Your task to perform on an android device: Go to internet settings Image 0: 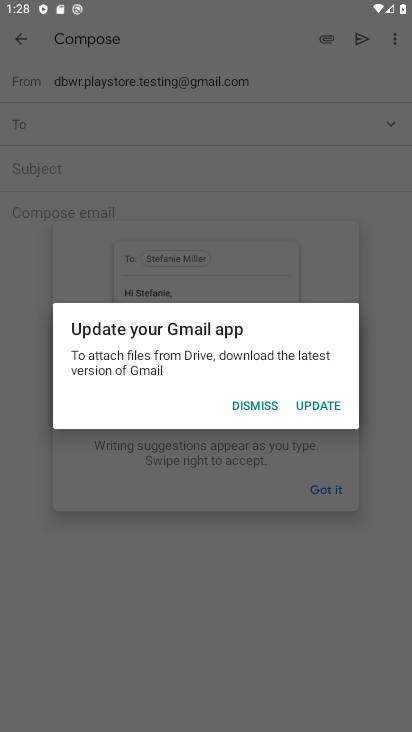
Step 0: drag from (137, 10) to (124, 693)
Your task to perform on an android device: Go to internet settings Image 1: 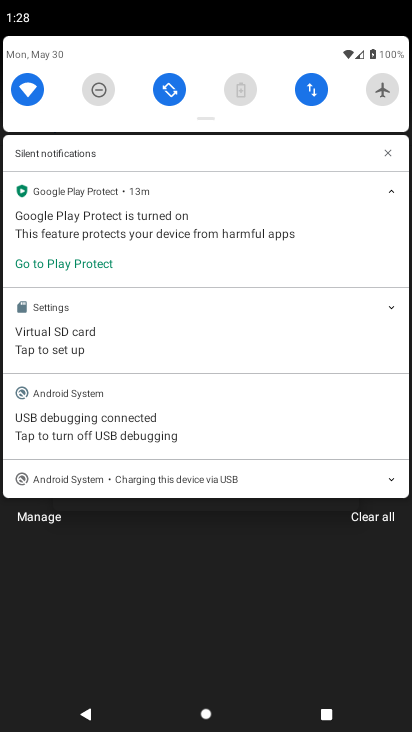
Step 1: click (308, 86)
Your task to perform on an android device: Go to internet settings Image 2: 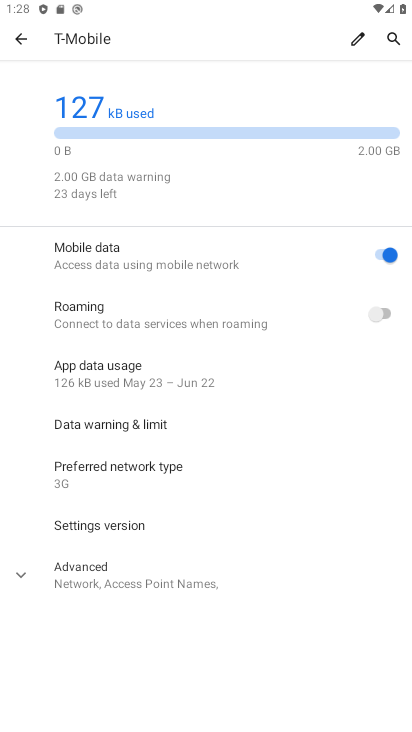
Step 2: task complete